Your task to perform on an android device: Open Maps and search for coffee Image 0: 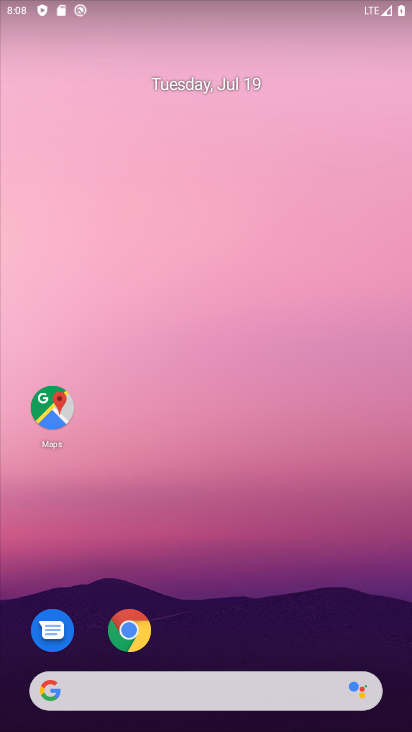
Step 0: drag from (200, 663) to (276, 144)
Your task to perform on an android device: Open Maps and search for coffee Image 1: 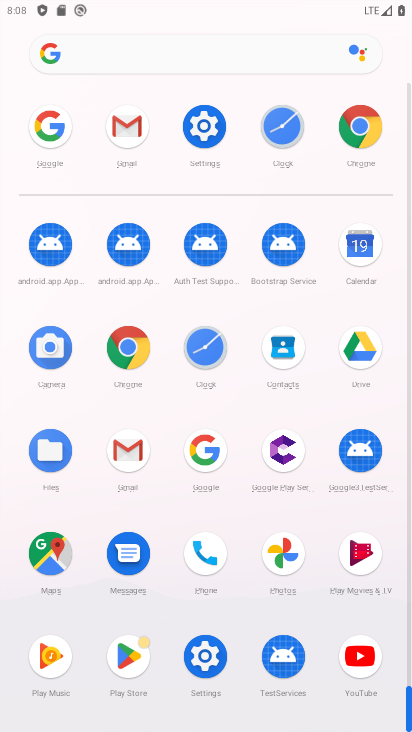
Step 1: drag from (210, 555) to (228, 420)
Your task to perform on an android device: Open Maps and search for coffee Image 2: 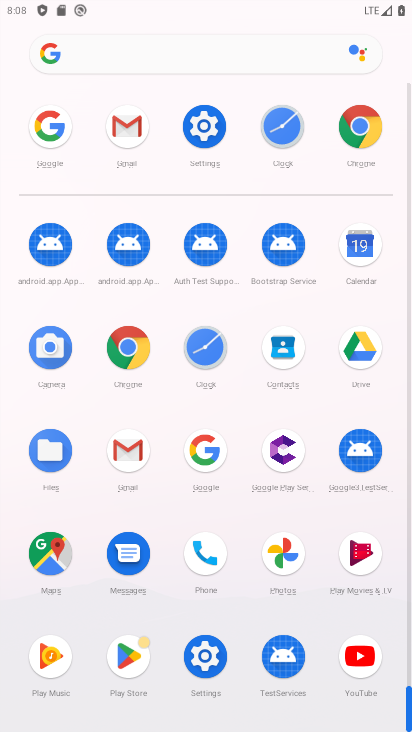
Step 2: drag from (234, 361) to (211, 719)
Your task to perform on an android device: Open Maps and search for coffee Image 3: 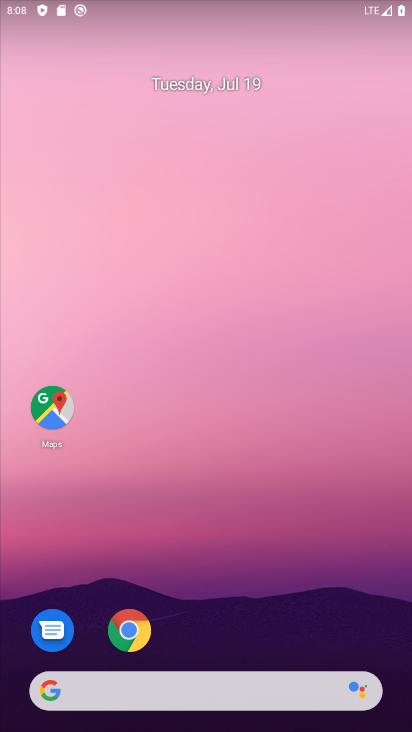
Step 3: drag from (237, 563) to (241, 149)
Your task to perform on an android device: Open Maps and search for coffee Image 4: 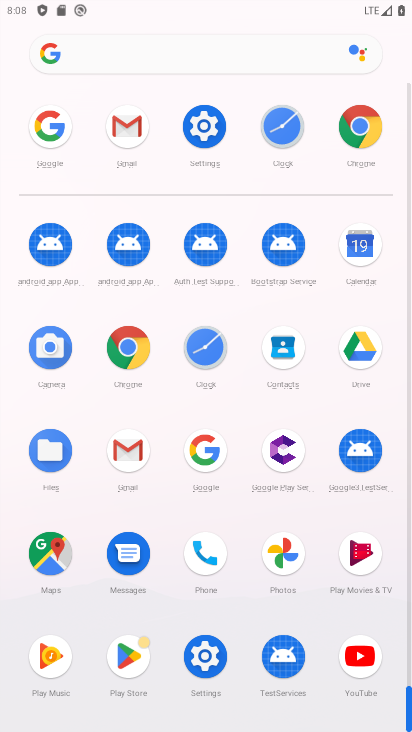
Step 4: drag from (214, 567) to (223, 300)
Your task to perform on an android device: Open Maps and search for coffee Image 5: 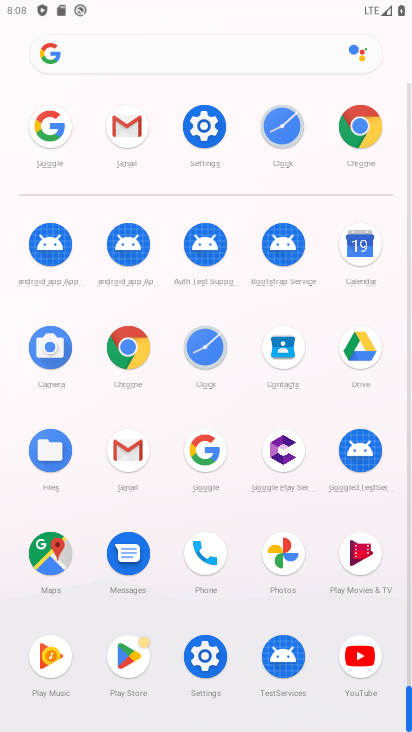
Step 5: click (59, 567)
Your task to perform on an android device: Open Maps and search for coffee Image 6: 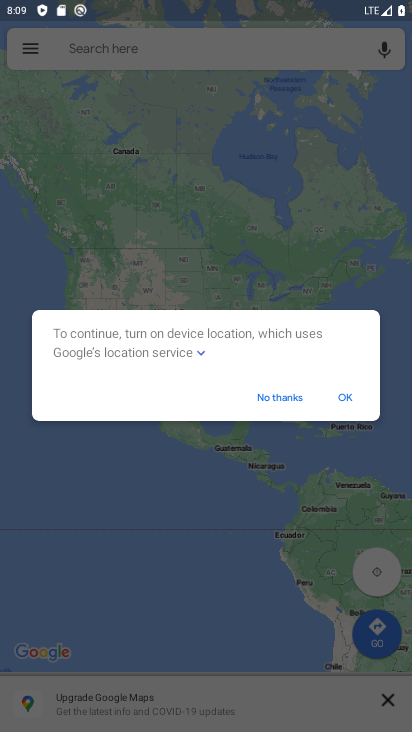
Step 6: click (341, 397)
Your task to perform on an android device: Open Maps and search for coffee Image 7: 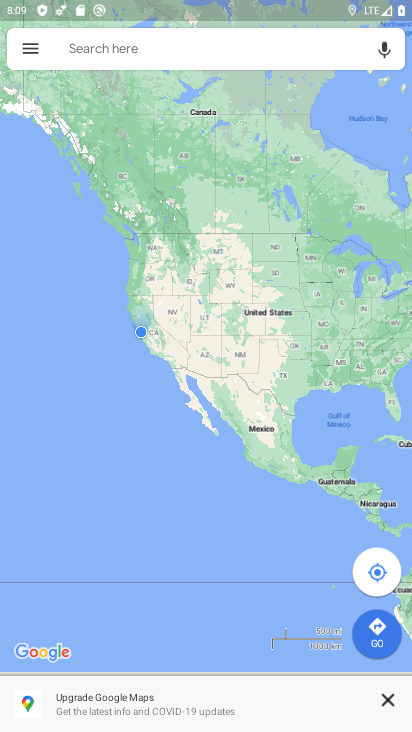
Step 7: click (238, 48)
Your task to perform on an android device: Open Maps and search for coffee Image 8: 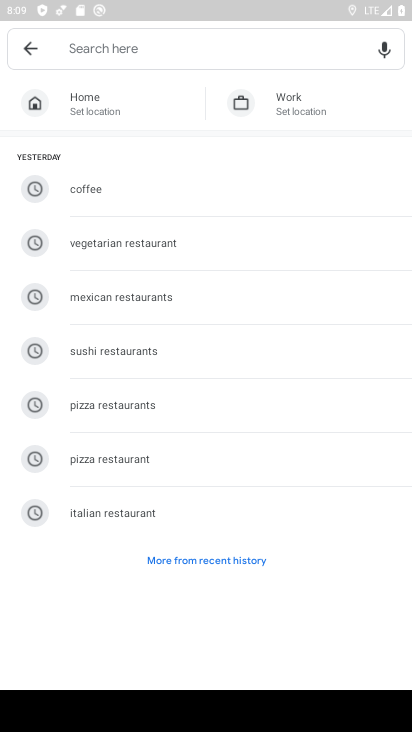
Step 8: click (120, 199)
Your task to perform on an android device: Open Maps and search for coffee Image 9: 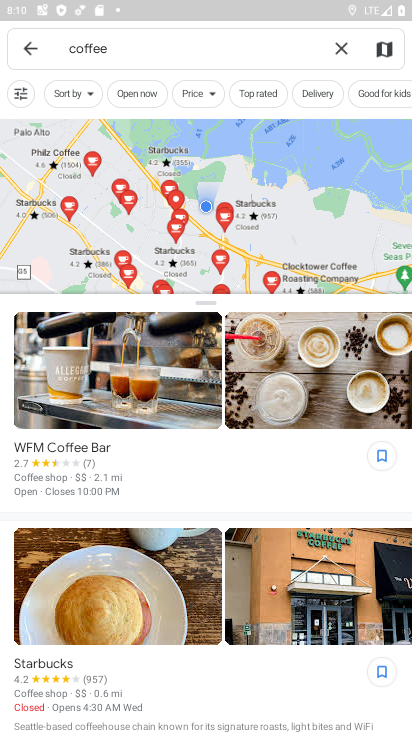
Step 9: task complete